Your task to perform on an android device: Search for seafood restaurants on Google Maps Image 0: 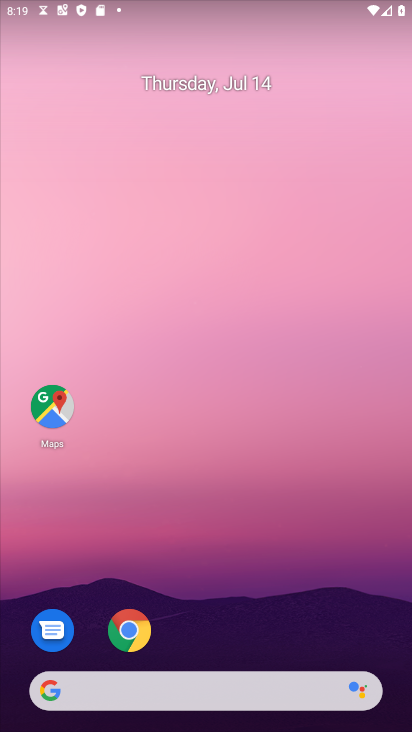
Step 0: click (43, 400)
Your task to perform on an android device: Search for seafood restaurants on Google Maps Image 1: 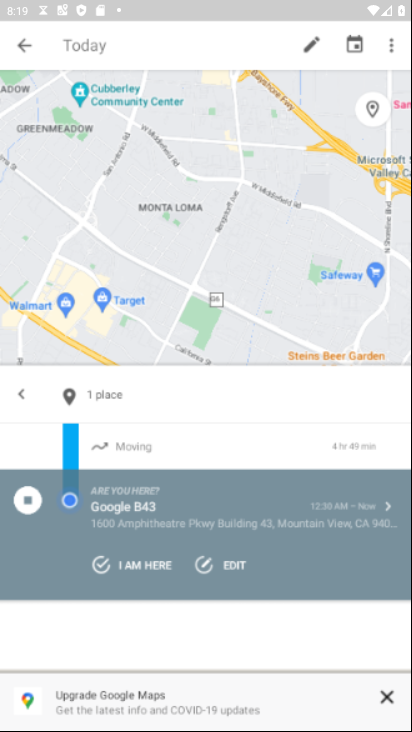
Step 1: click (7, 52)
Your task to perform on an android device: Search for seafood restaurants on Google Maps Image 2: 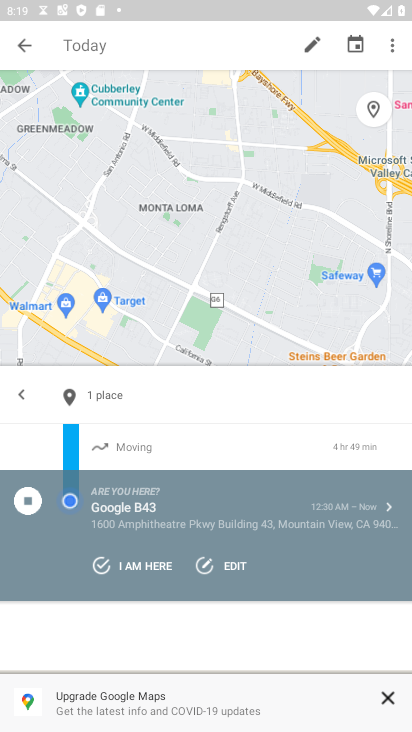
Step 2: click (23, 44)
Your task to perform on an android device: Search for seafood restaurants on Google Maps Image 3: 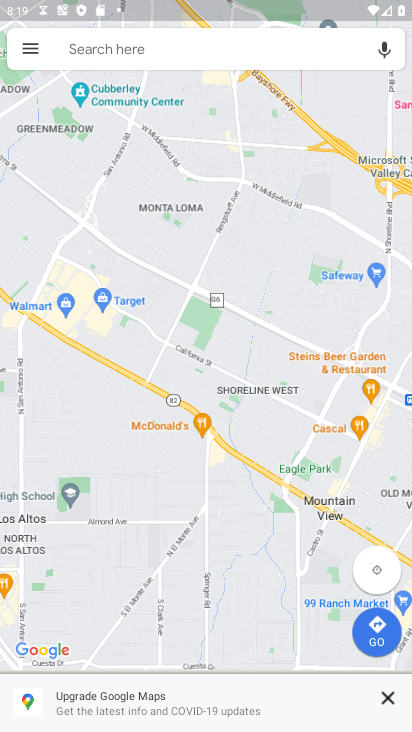
Step 3: click (128, 44)
Your task to perform on an android device: Search for seafood restaurants on Google Maps Image 4: 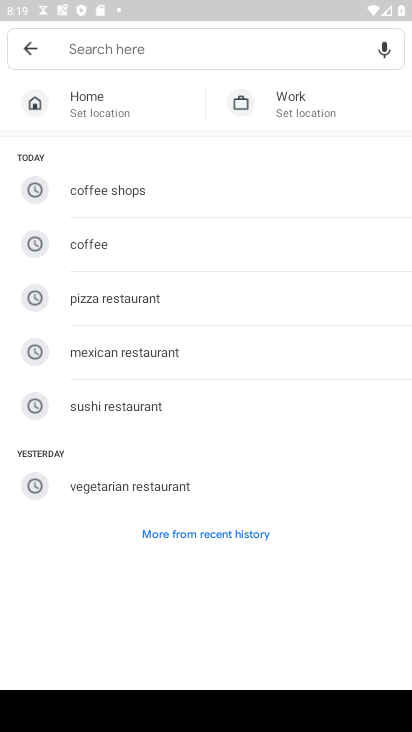
Step 4: type "seafood restaurants"
Your task to perform on an android device: Search for seafood restaurants on Google Maps Image 5: 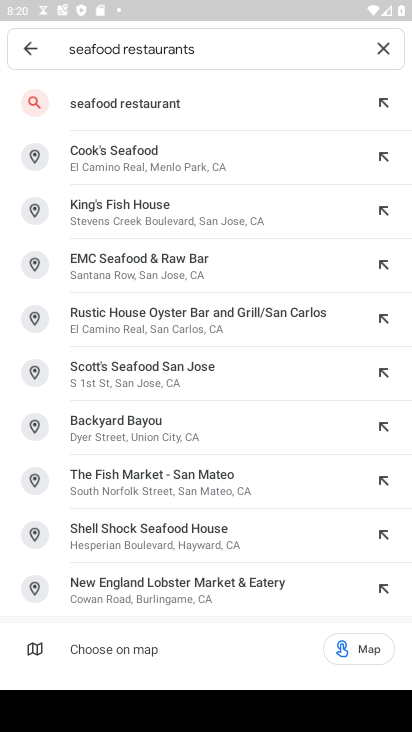
Step 5: click (204, 97)
Your task to perform on an android device: Search for seafood restaurants on Google Maps Image 6: 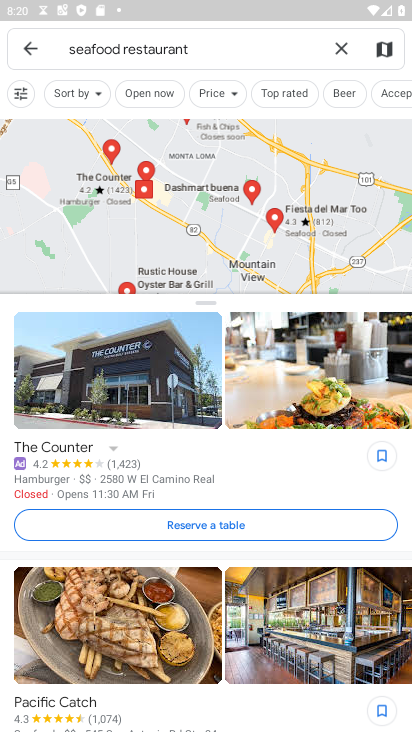
Step 6: task complete